Your task to perform on an android device: Show me productivity apps on the Play Store Image 0: 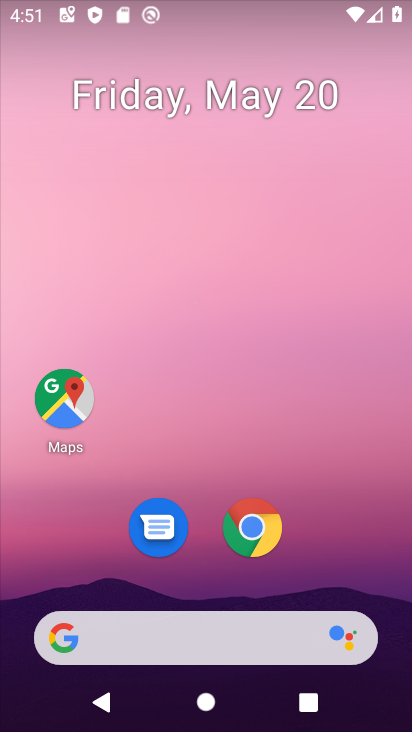
Step 0: drag from (172, 613) to (216, 212)
Your task to perform on an android device: Show me productivity apps on the Play Store Image 1: 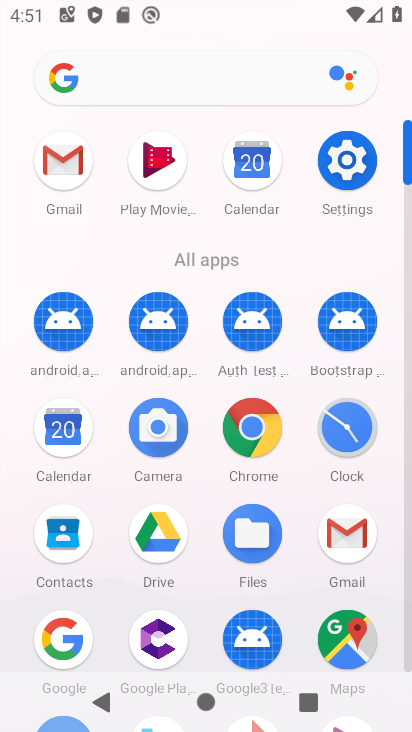
Step 1: drag from (200, 624) to (213, 194)
Your task to perform on an android device: Show me productivity apps on the Play Store Image 2: 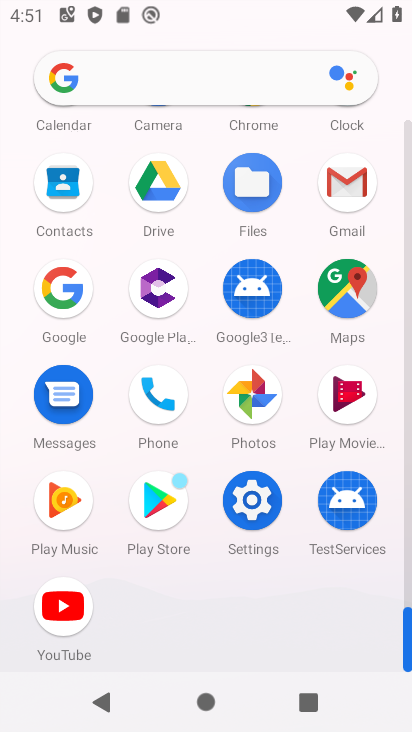
Step 2: click (154, 510)
Your task to perform on an android device: Show me productivity apps on the Play Store Image 3: 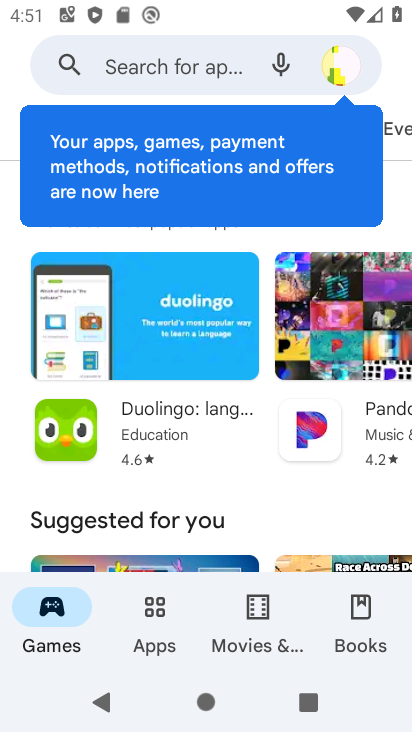
Step 3: click (159, 622)
Your task to perform on an android device: Show me productivity apps on the Play Store Image 4: 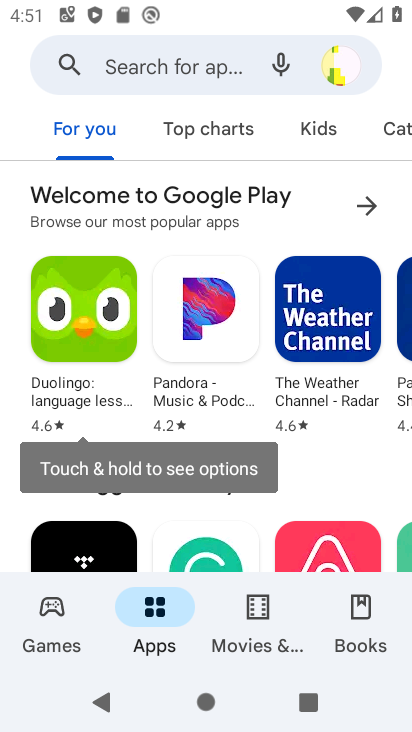
Step 4: task complete